Your task to perform on an android device: Open the clock Image 0: 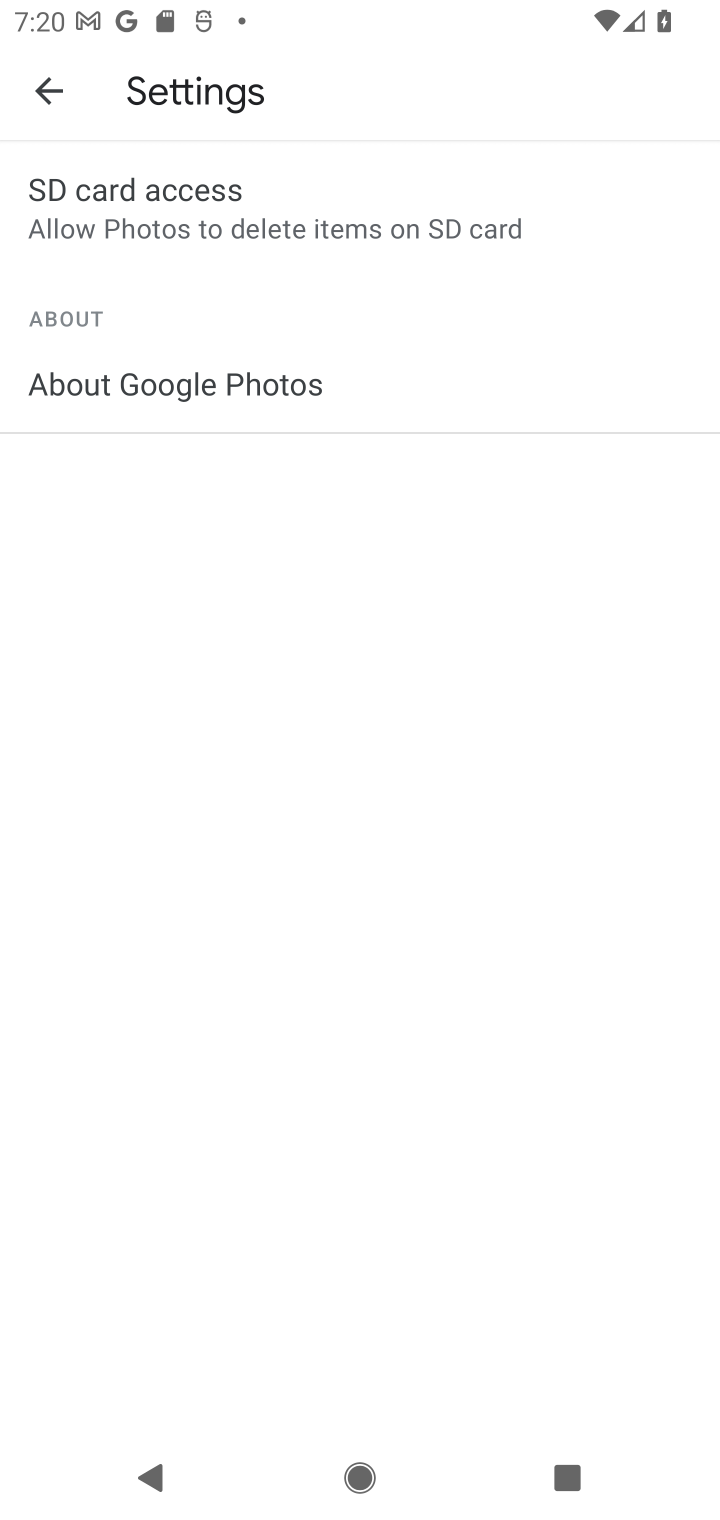
Step 0: press home button
Your task to perform on an android device: Open the clock Image 1: 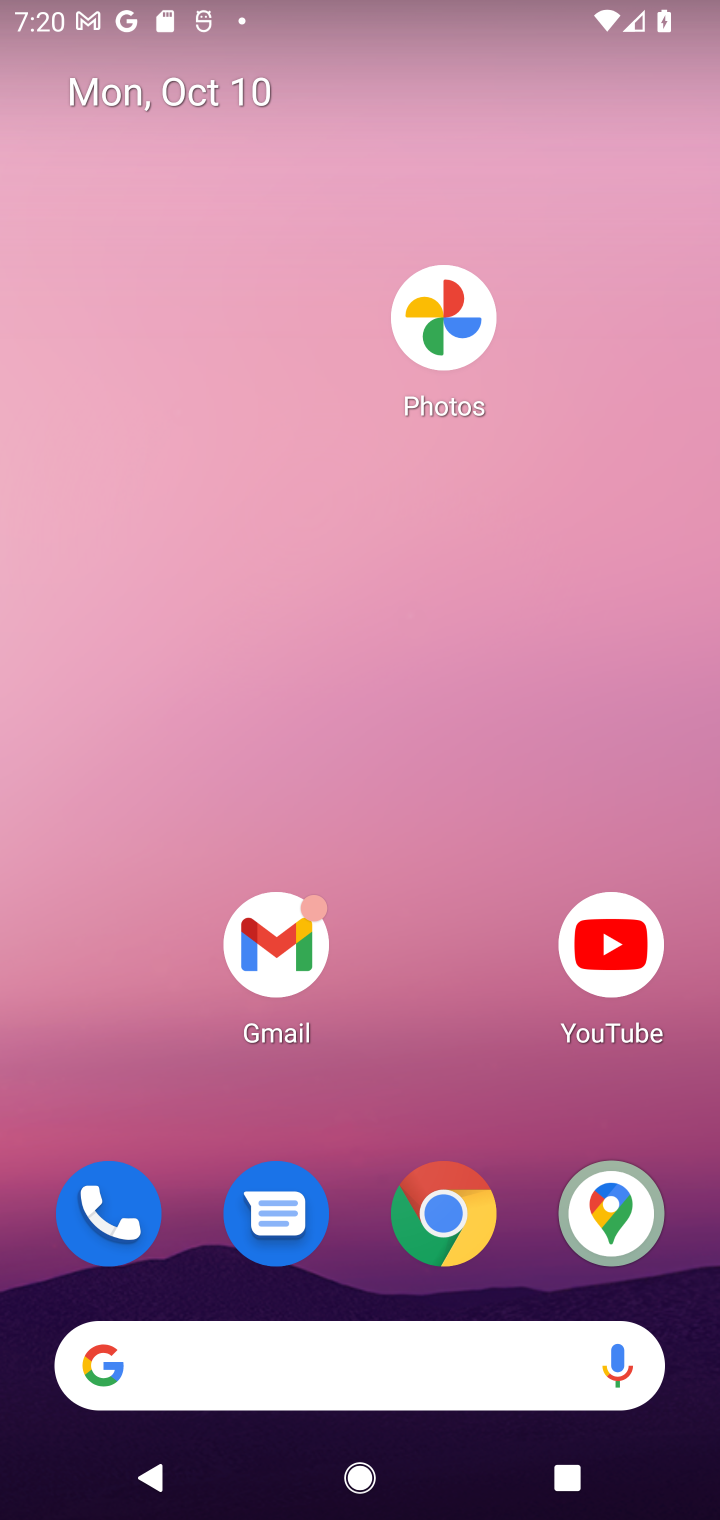
Step 1: drag from (355, 1137) to (431, 449)
Your task to perform on an android device: Open the clock Image 2: 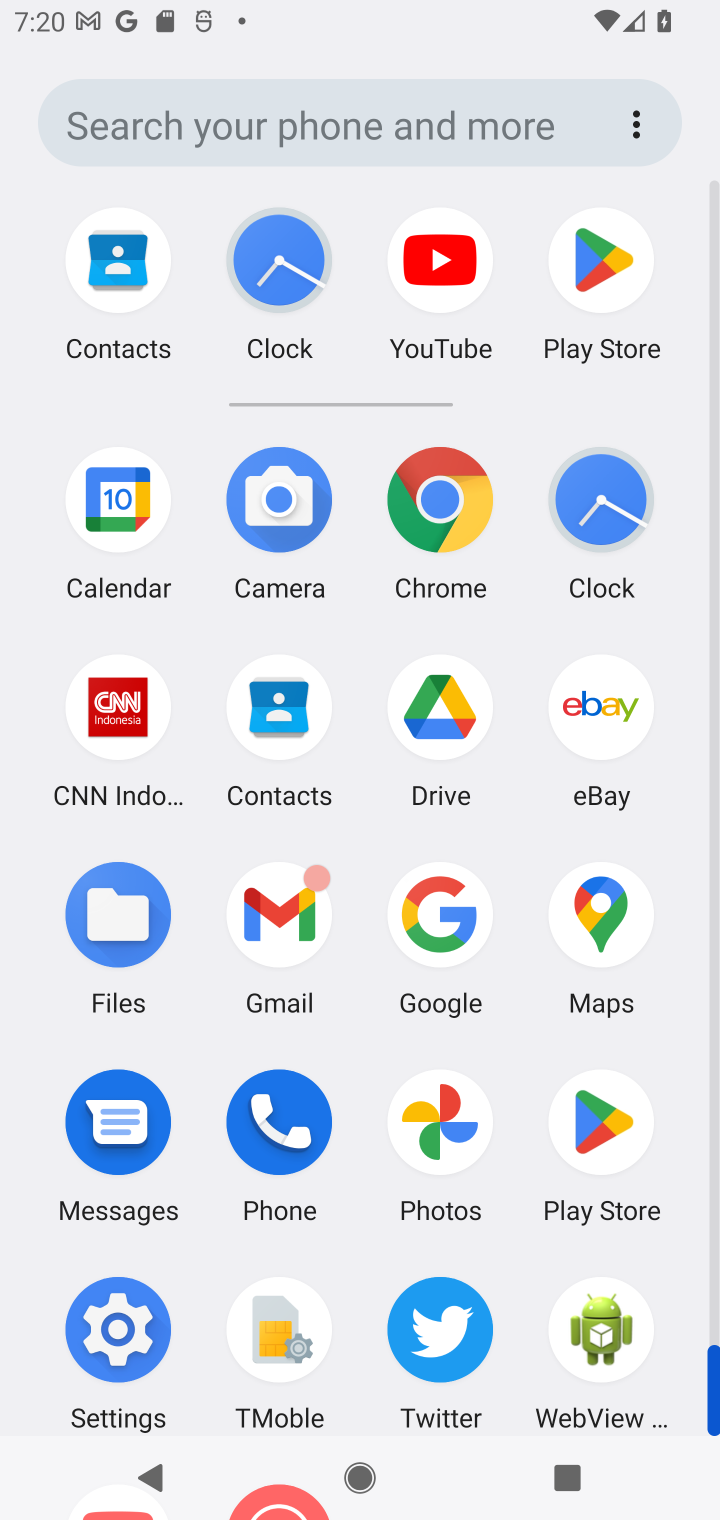
Step 2: click (570, 521)
Your task to perform on an android device: Open the clock Image 3: 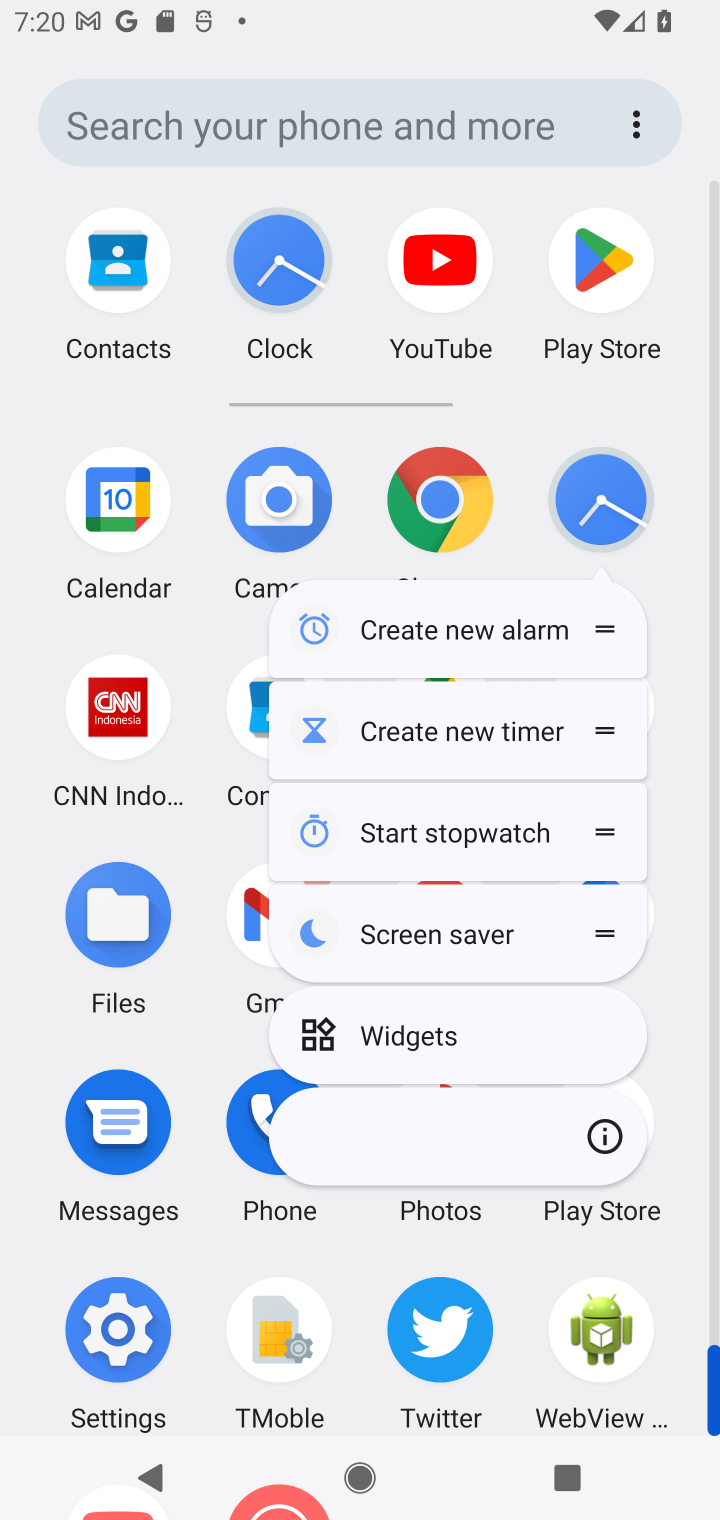
Step 3: click (570, 521)
Your task to perform on an android device: Open the clock Image 4: 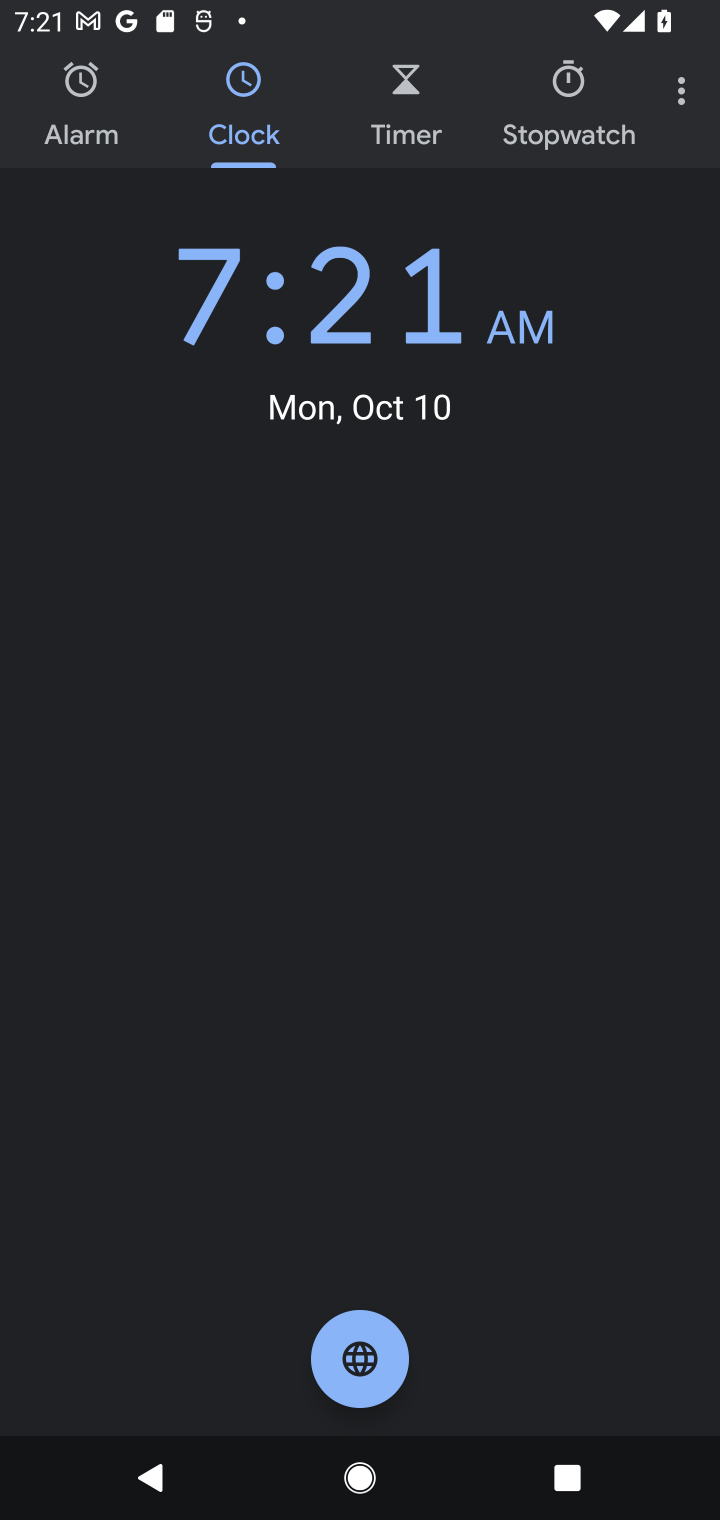
Step 4: task complete